Your task to perform on an android device: Open location settings Image 0: 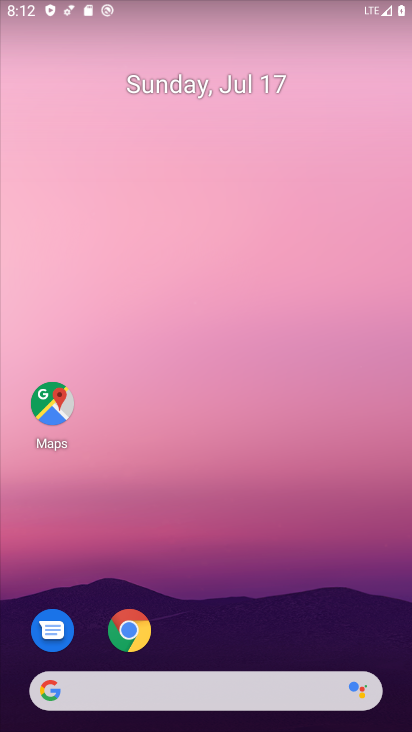
Step 0: drag from (209, 652) to (411, 261)
Your task to perform on an android device: Open location settings Image 1: 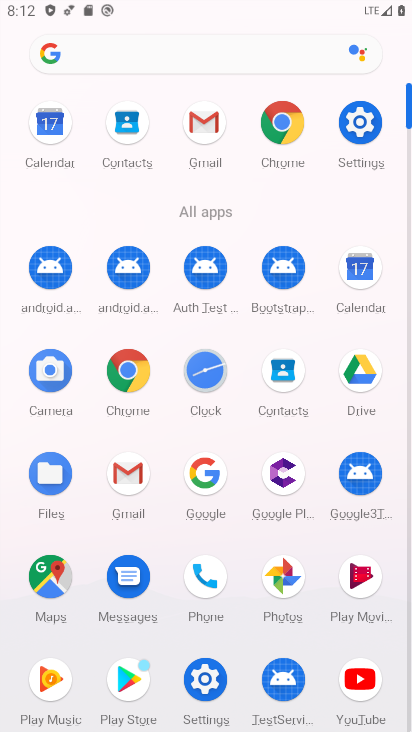
Step 1: click (208, 671)
Your task to perform on an android device: Open location settings Image 2: 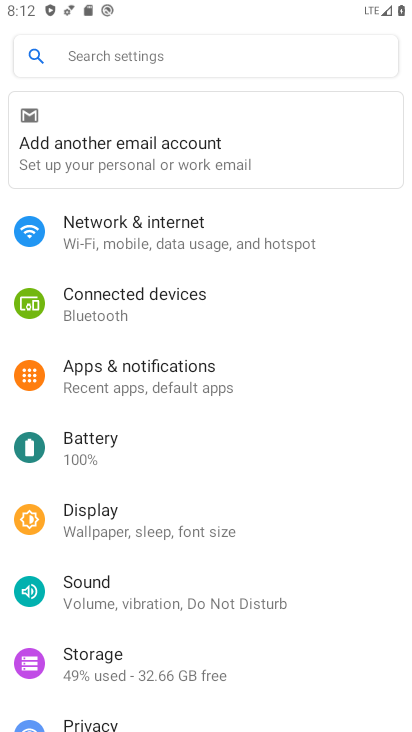
Step 2: drag from (179, 648) to (181, 334)
Your task to perform on an android device: Open location settings Image 3: 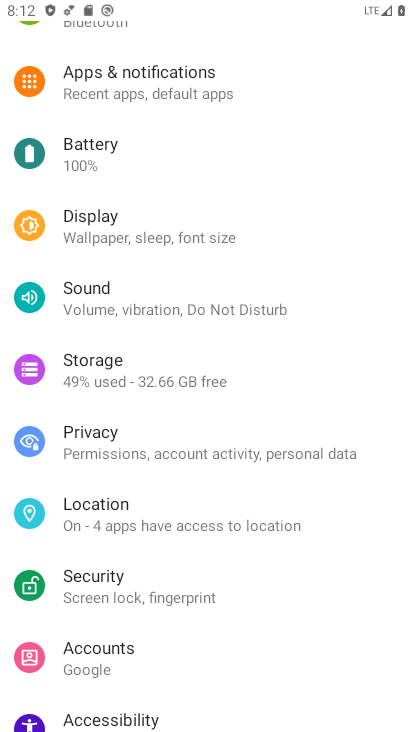
Step 3: click (131, 523)
Your task to perform on an android device: Open location settings Image 4: 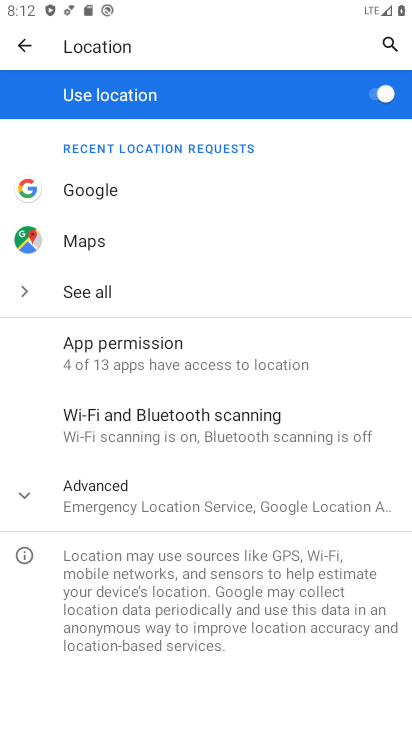
Step 4: task complete